Your task to perform on an android device: check android version Image 0: 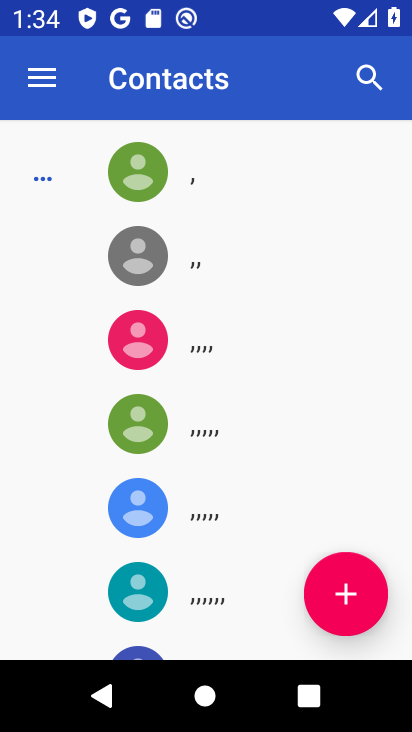
Step 0: press home button
Your task to perform on an android device: check android version Image 1: 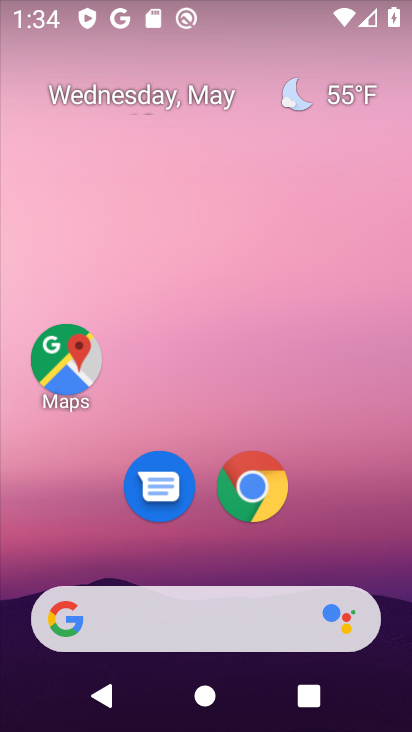
Step 1: drag from (277, 579) to (349, 142)
Your task to perform on an android device: check android version Image 2: 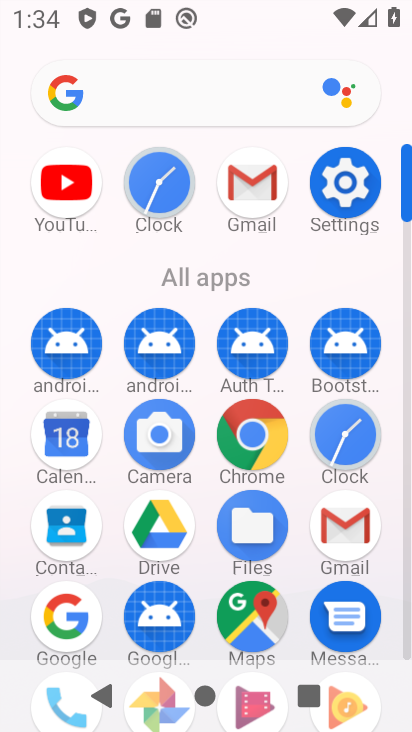
Step 2: click (335, 187)
Your task to perform on an android device: check android version Image 3: 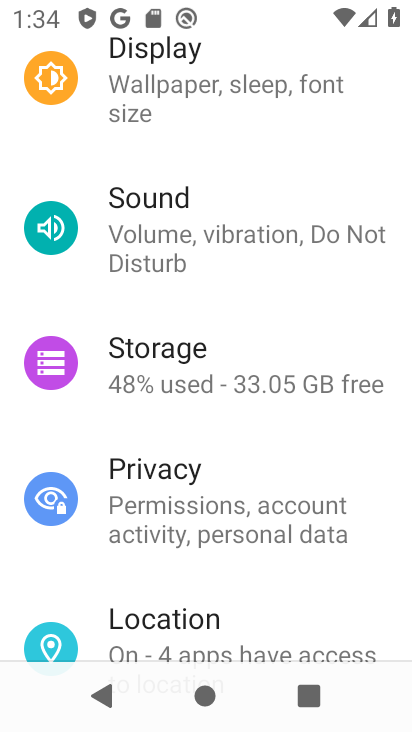
Step 3: drag from (257, 502) to (237, 29)
Your task to perform on an android device: check android version Image 4: 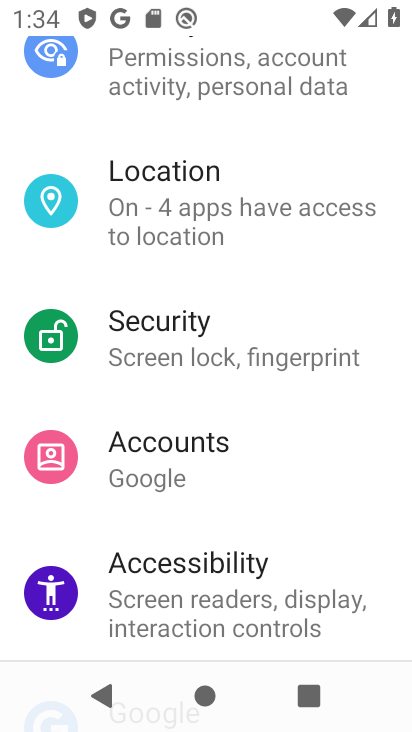
Step 4: drag from (241, 553) to (359, 128)
Your task to perform on an android device: check android version Image 5: 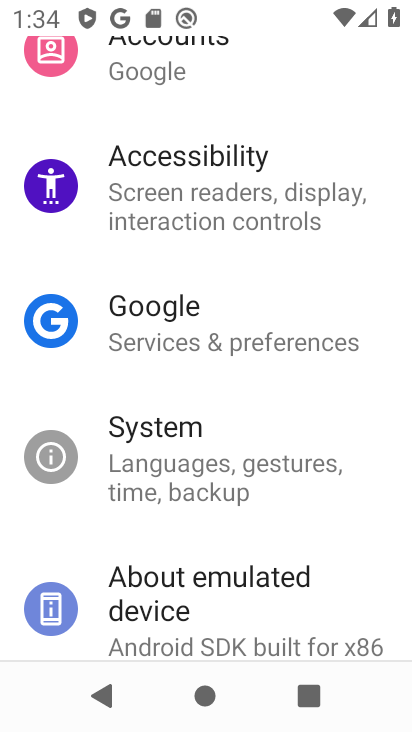
Step 5: drag from (262, 591) to (317, 319)
Your task to perform on an android device: check android version Image 6: 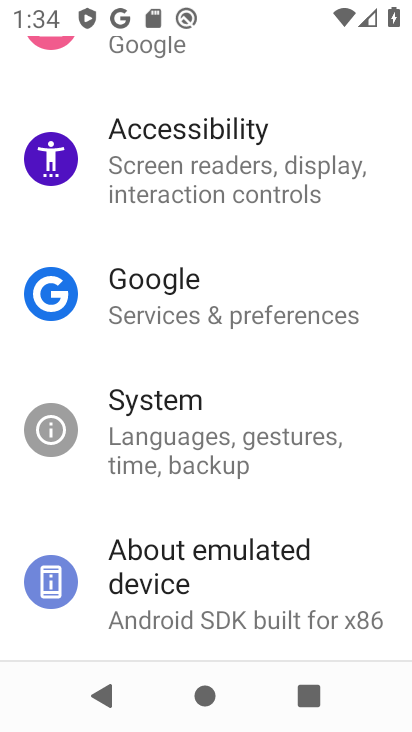
Step 6: click (256, 550)
Your task to perform on an android device: check android version Image 7: 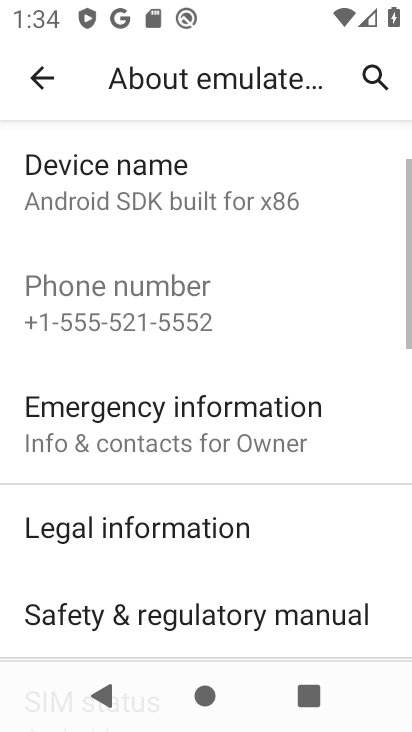
Step 7: drag from (256, 550) to (325, 106)
Your task to perform on an android device: check android version Image 8: 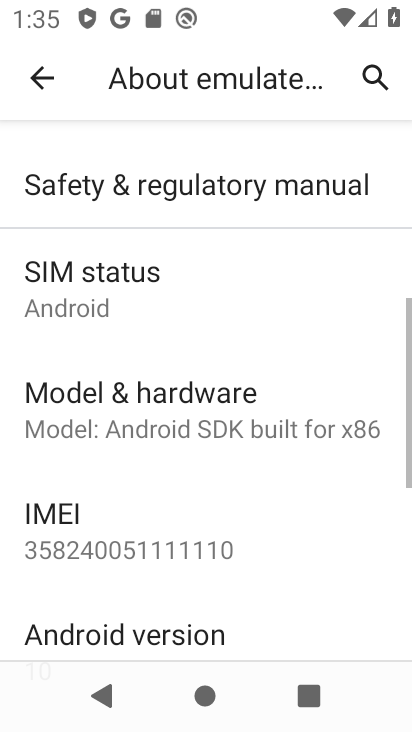
Step 8: drag from (291, 530) to (328, 304)
Your task to perform on an android device: check android version Image 9: 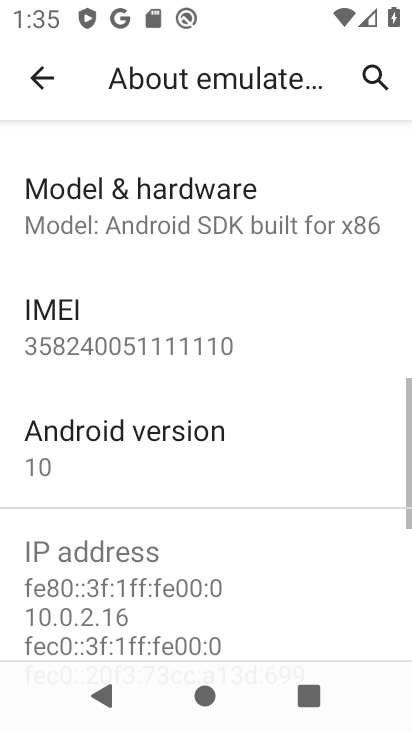
Step 9: click (226, 467)
Your task to perform on an android device: check android version Image 10: 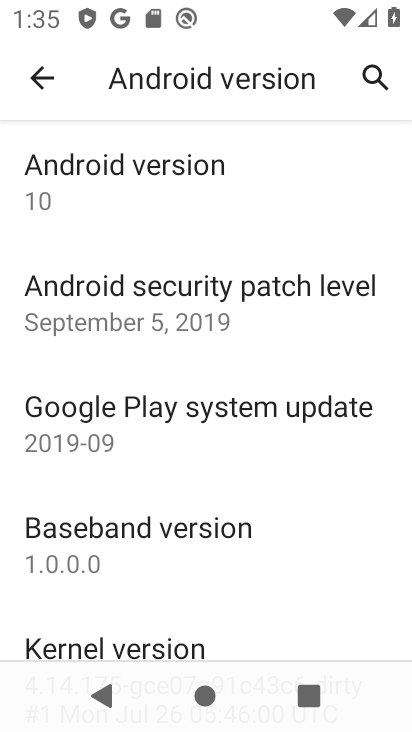
Step 10: task complete